Your task to perform on an android device: View the shopping cart on costco. Search for rayovac triple a on costco, select the first entry, add it to the cart, then select checkout. Image 0: 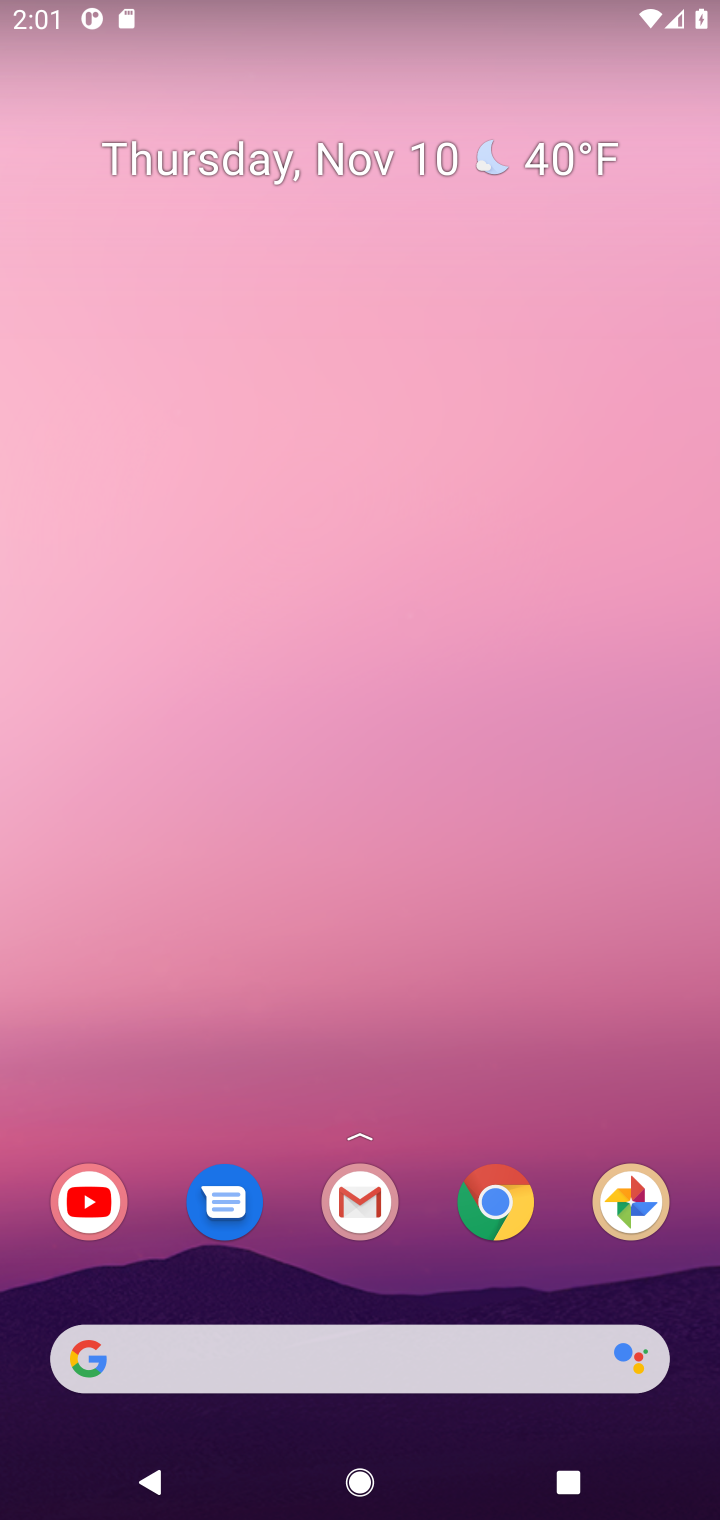
Step 0: click (491, 1214)
Your task to perform on an android device: View the shopping cart on costco. Search for rayovac triple a on costco, select the first entry, add it to the cart, then select checkout. Image 1: 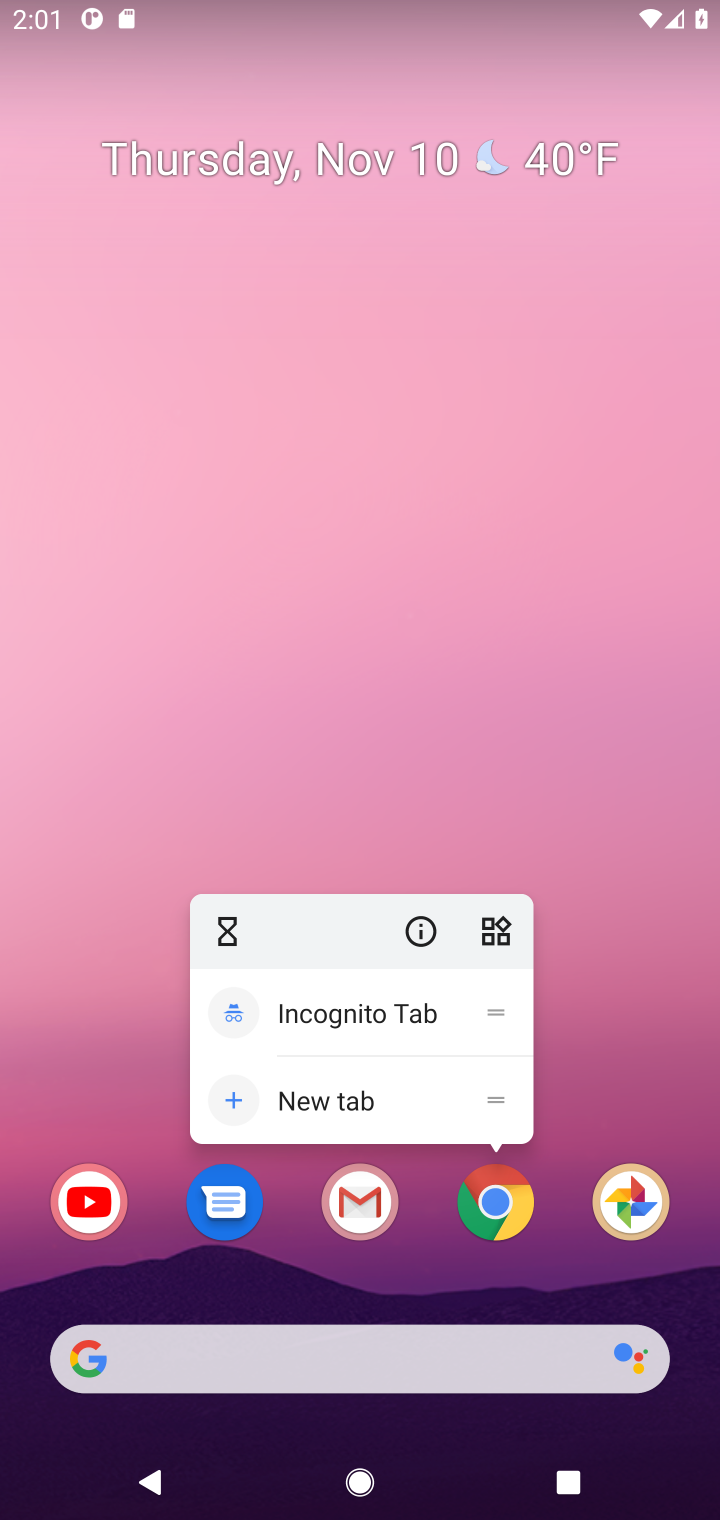
Step 1: click (497, 1208)
Your task to perform on an android device: View the shopping cart on costco. Search for rayovac triple a on costco, select the first entry, add it to the cart, then select checkout. Image 2: 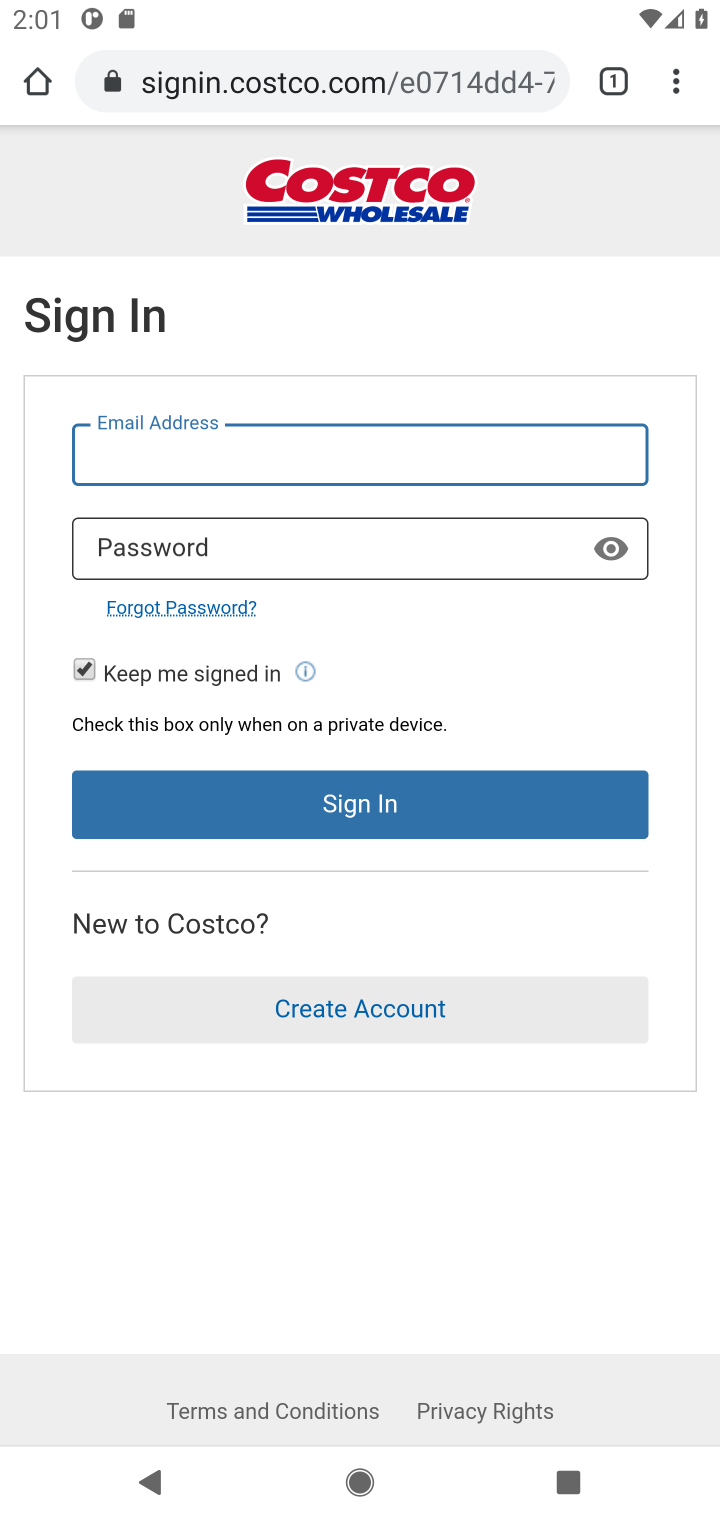
Step 2: press back button
Your task to perform on an android device: View the shopping cart on costco. Search for rayovac triple a on costco, select the first entry, add it to the cart, then select checkout. Image 3: 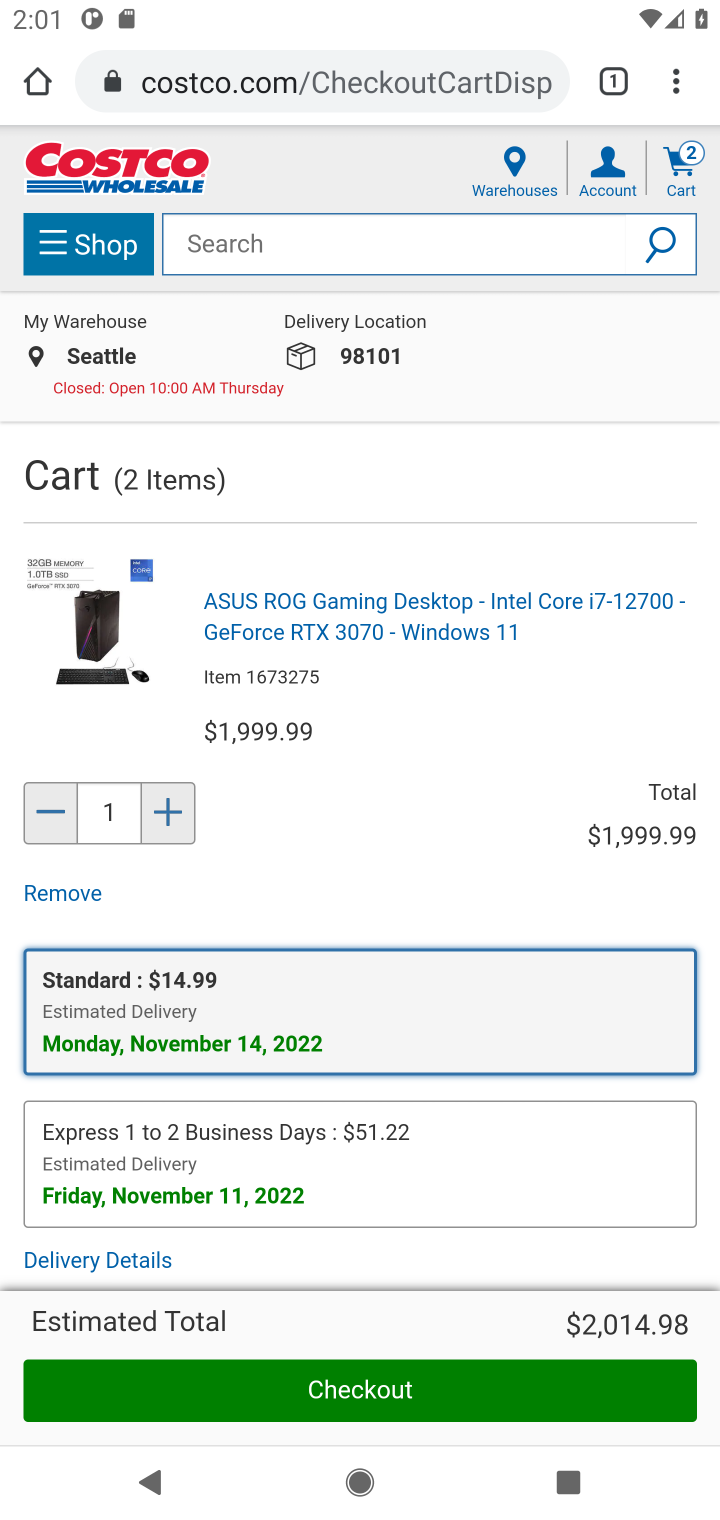
Step 3: drag from (348, 1128) to (507, 612)
Your task to perform on an android device: View the shopping cart on costco. Search for rayovac triple a on costco, select the first entry, add it to the cart, then select checkout. Image 4: 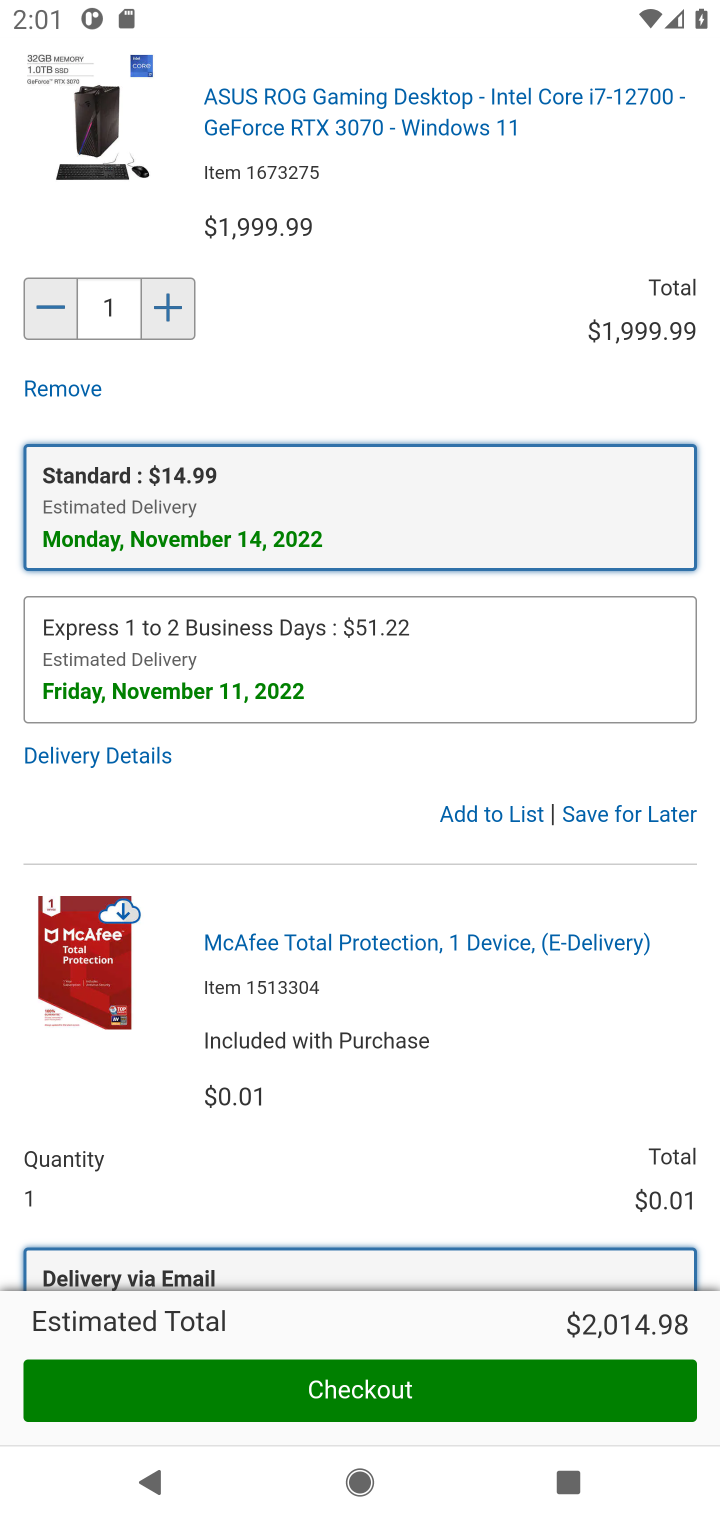
Step 4: click (658, 809)
Your task to perform on an android device: View the shopping cart on costco. Search for rayovac triple a on costco, select the first entry, add it to the cart, then select checkout. Image 5: 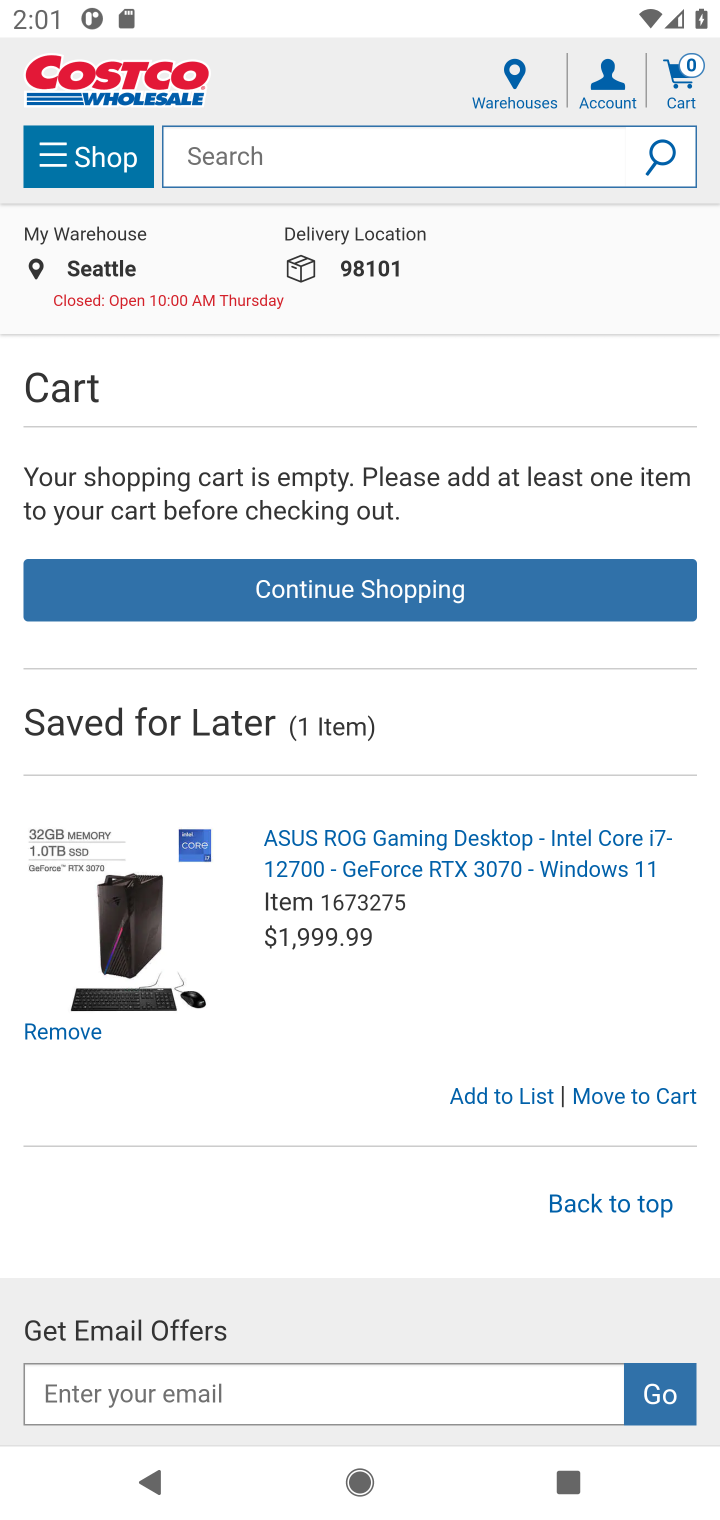
Step 5: click (399, 146)
Your task to perform on an android device: View the shopping cart on costco. Search for rayovac triple a on costco, select the first entry, add it to the cart, then select checkout. Image 6: 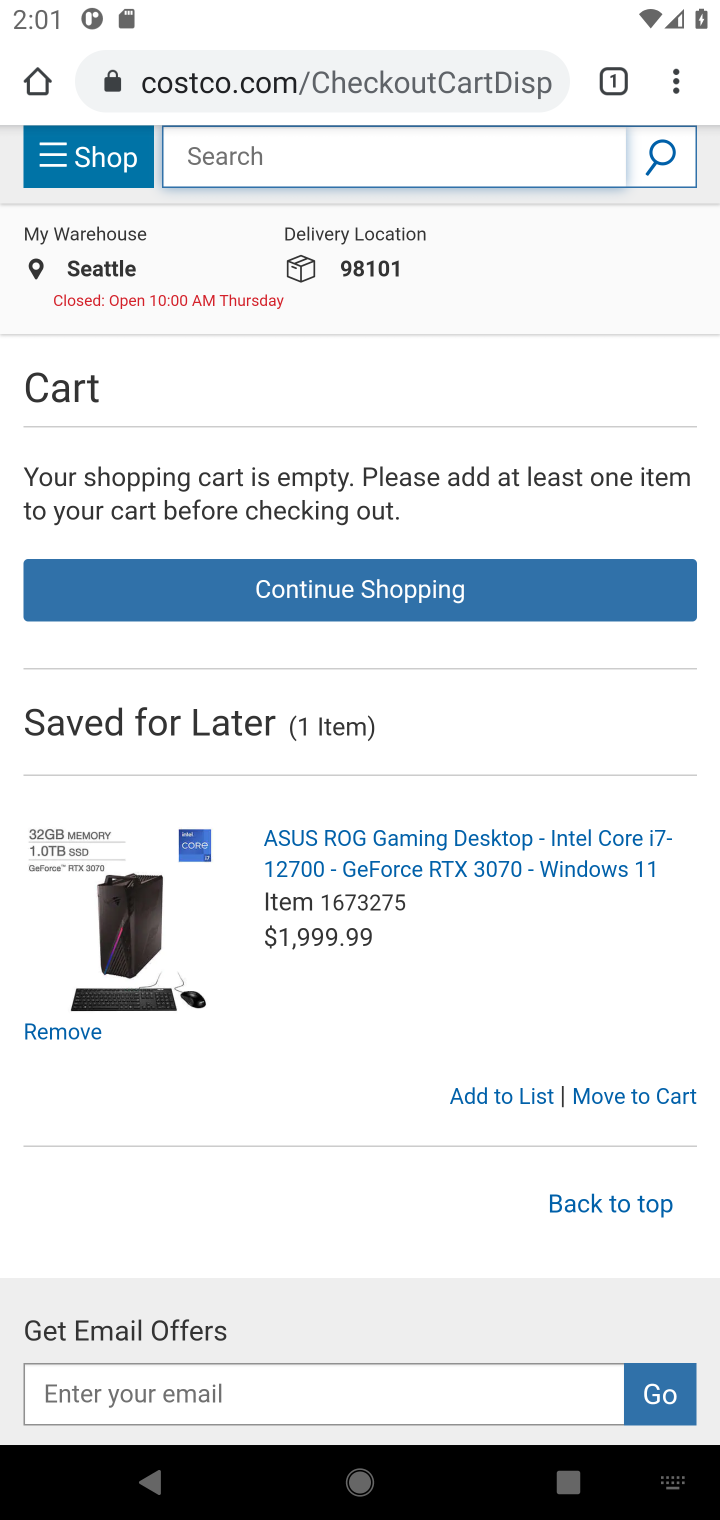
Step 6: type "rayovac triple a"
Your task to perform on an android device: View the shopping cart on costco. Search for rayovac triple a on costco, select the first entry, add it to the cart, then select checkout. Image 7: 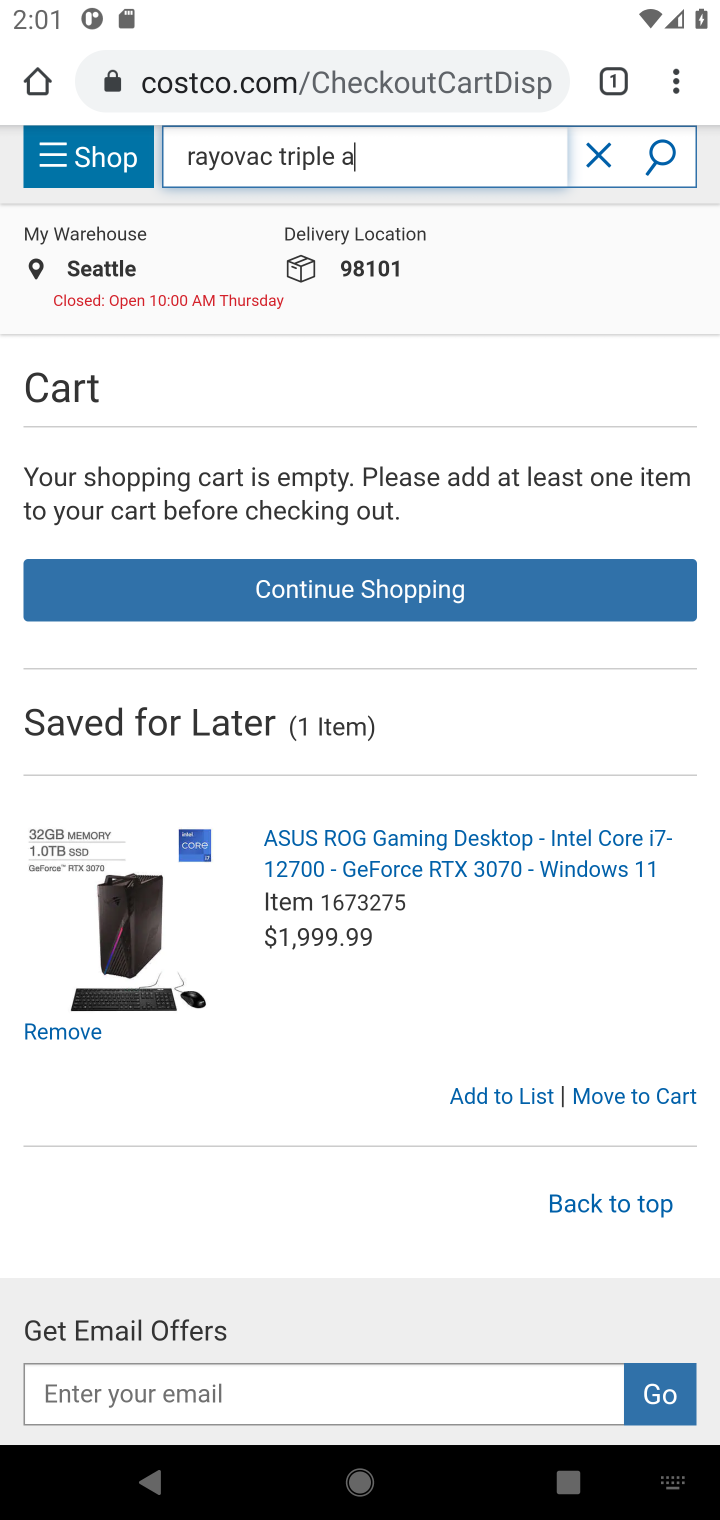
Step 7: press enter
Your task to perform on an android device: View the shopping cart on costco. Search for rayovac triple a on costco, select the first entry, add it to the cart, then select checkout. Image 8: 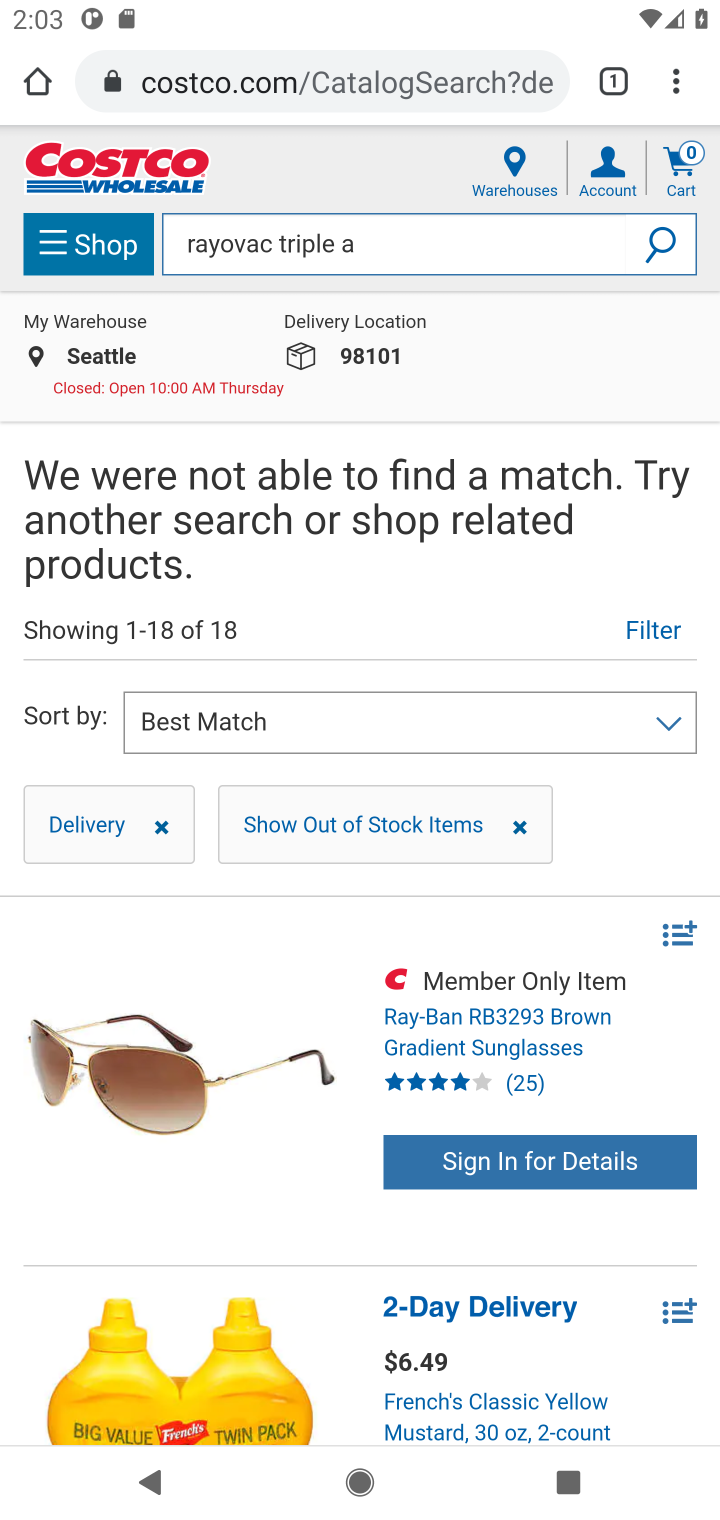
Step 8: task complete